Your task to perform on an android device: Open display settings Image 0: 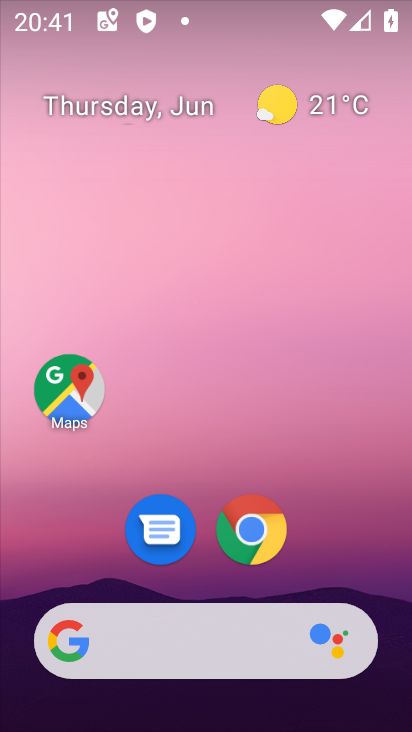
Step 0: drag from (341, 519) to (244, 112)
Your task to perform on an android device: Open display settings Image 1: 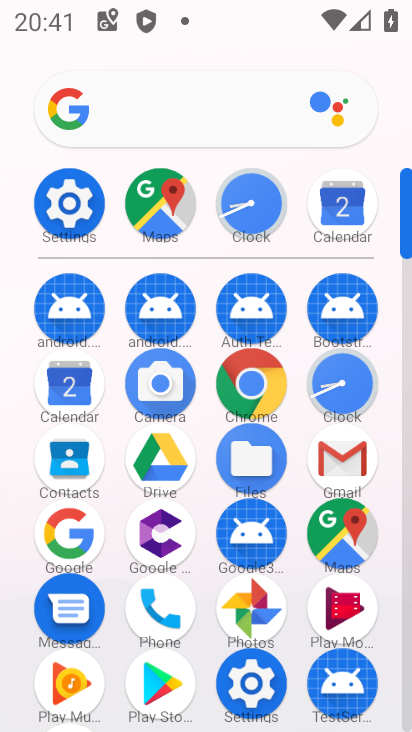
Step 1: click (67, 200)
Your task to perform on an android device: Open display settings Image 2: 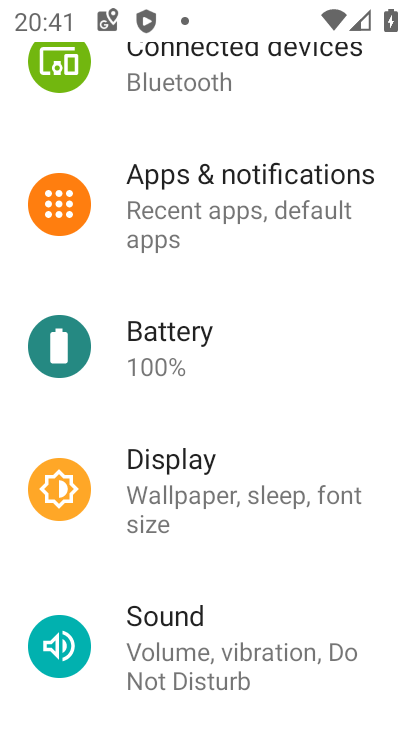
Step 2: click (176, 466)
Your task to perform on an android device: Open display settings Image 3: 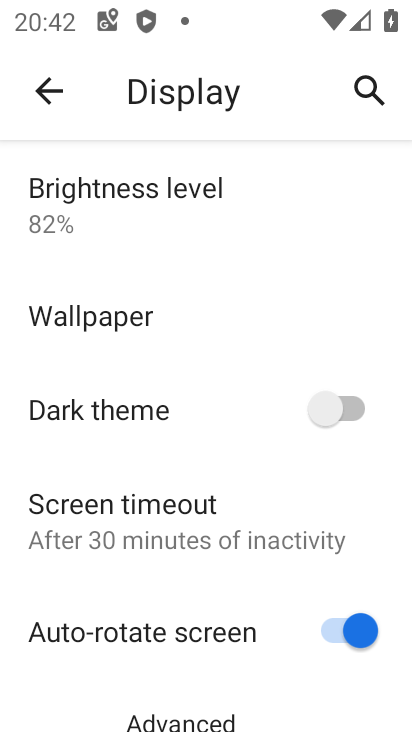
Step 3: task complete